Your task to perform on an android device: turn vacation reply on in the gmail app Image 0: 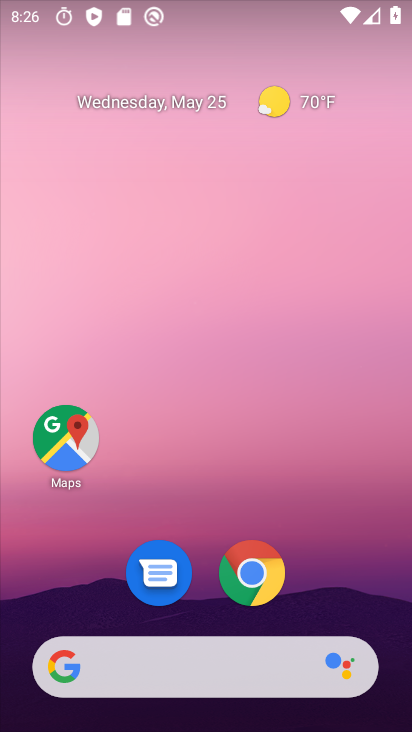
Step 0: drag from (357, 592) to (252, 249)
Your task to perform on an android device: turn vacation reply on in the gmail app Image 1: 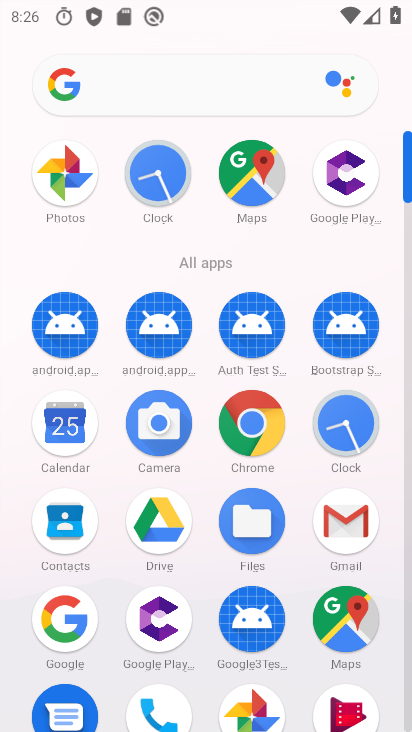
Step 1: click (357, 532)
Your task to perform on an android device: turn vacation reply on in the gmail app Image 2: 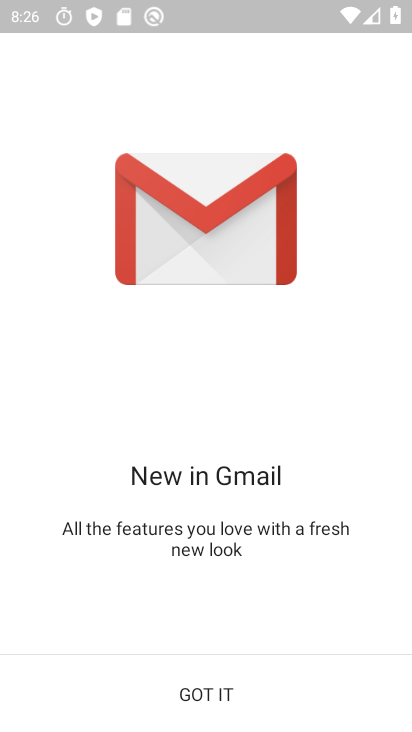
Step 2: click (221, 696)
Your task to perform on an android device: turn vacation reply on in the gmail app Image 3: 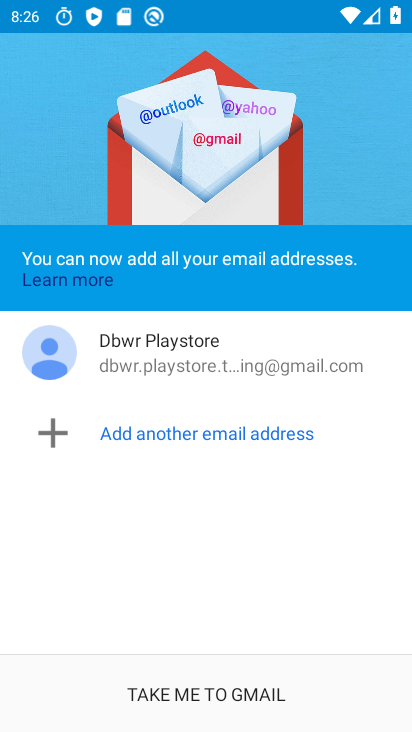
Step 3: click (221, 696)
Your task to perform on an android device: turn vacation reply on in the gmail app Image 4: 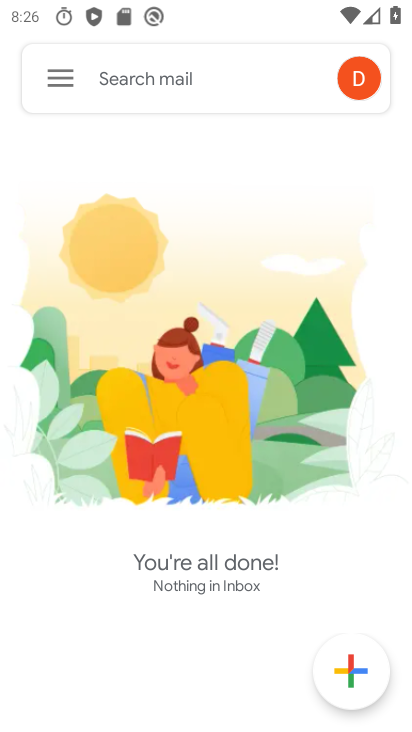
Step 4: click (62, 91)
Your task to perform on an android device: turn vacation reply on in the gmail app Image 5: 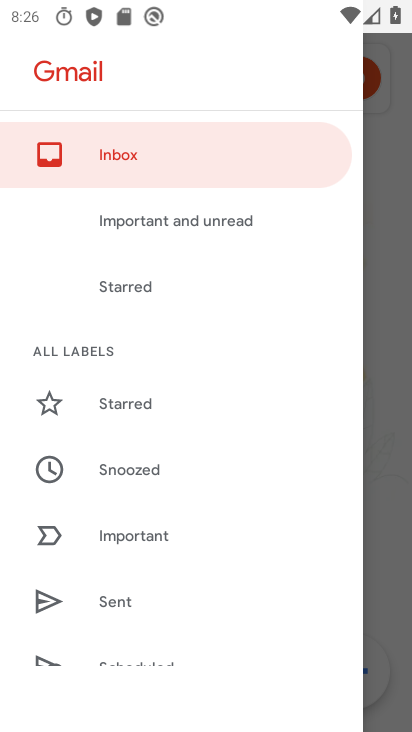
Step 5: drag from (130, 647) to (123, 264)
Your task to perform on an android device: turn vacation reply on in the gmail app Image 6: 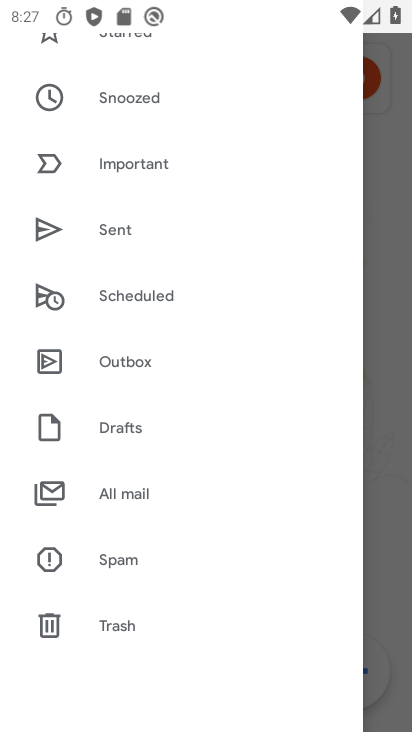
Step 6: drag from (156, 618) to (127, 213)
Your task to perform on an android device: turn vacation reply on in the gmail app Image 7: 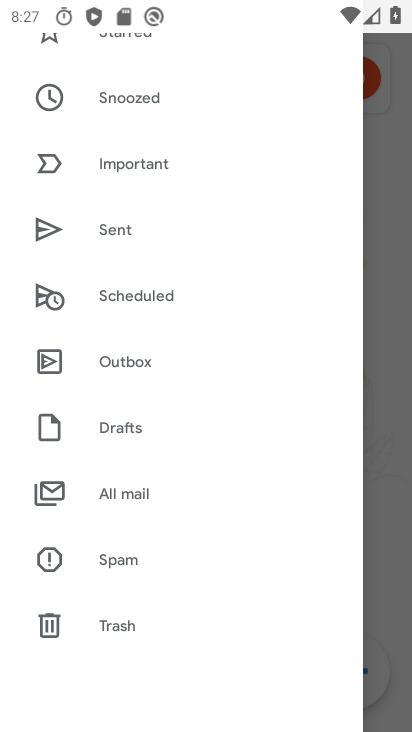
Step 7: drag from (119, 590) to (98, 296)
Your task to perform on an android device: turn vacation reply on in the gmail app Image 8: 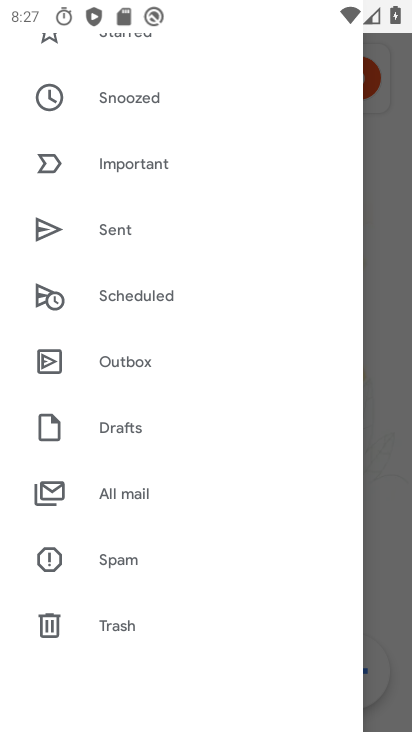
Step 8: drag from (111, 591) to (141, 211)
Your task to perform on an android device: turn vacation reply on in the gmail app Image 9: 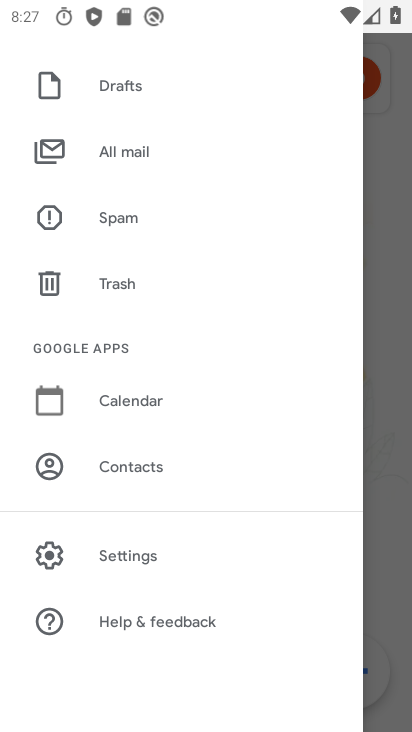
Step 9: click (137, 570)
Your task to perform on an android device: turn vacation reply on in the gmail app Image 10: 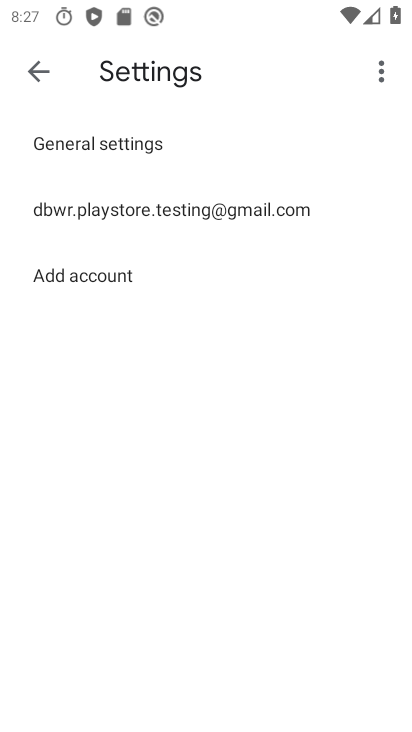
Step 10: click (245, 203)
Your task to perform on an android device: turn vacation reply on in the gmail app Image 11: 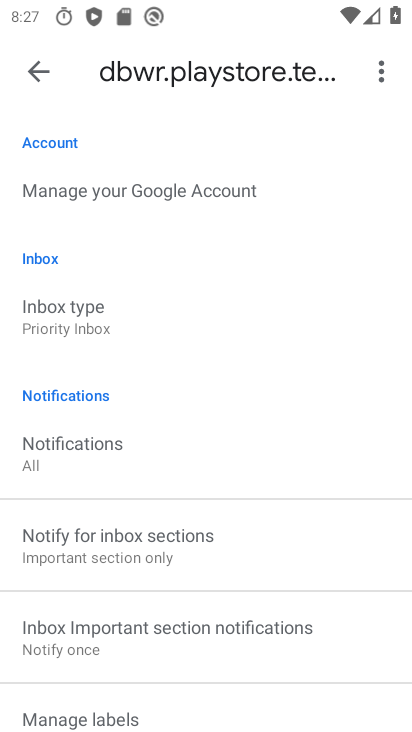
Step 11: drag from (172, 699) to (135, 258)
Your task to perform on an android device: turn vacation reply on in the gmail app Image 12: 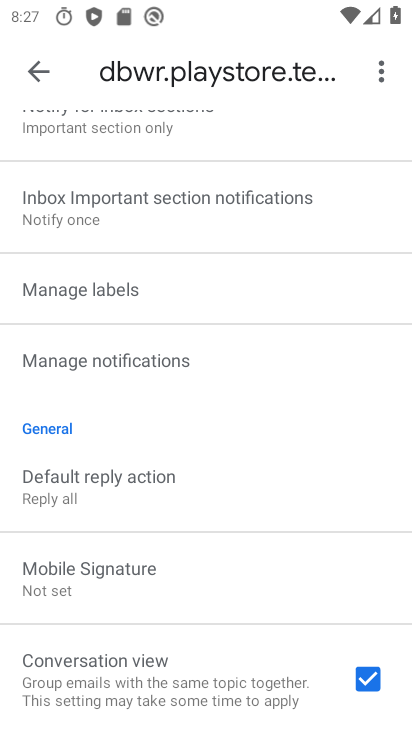
Step 12: drag from (143, 686) to (84, 180)
Your task to perform on an android device: turn vacation reply on in the gmail app Image 13: 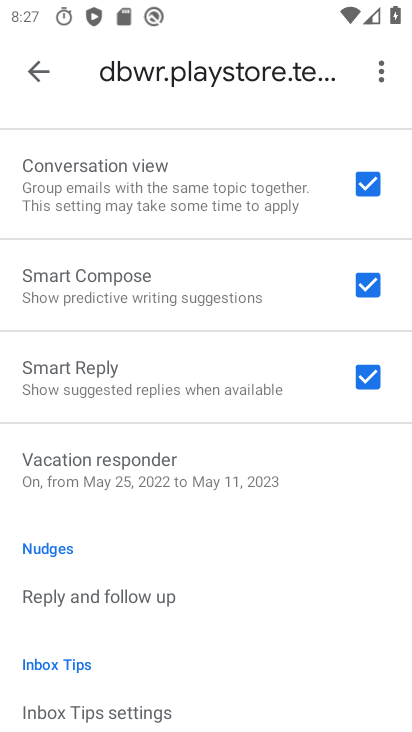
Step 13: click (132, 476)
Your task to perform on an android device: turn vacation reply on in the gmail app Image 14: 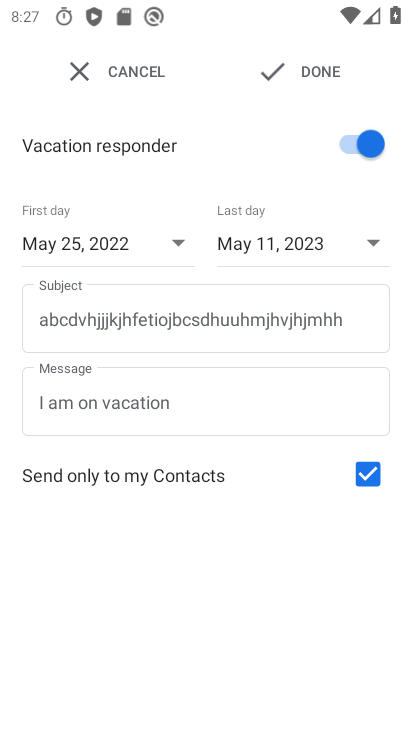
Step 14: click (317, 78)
Your task to perform on an android device: turn vacation reply on in the gmail app Image 15: 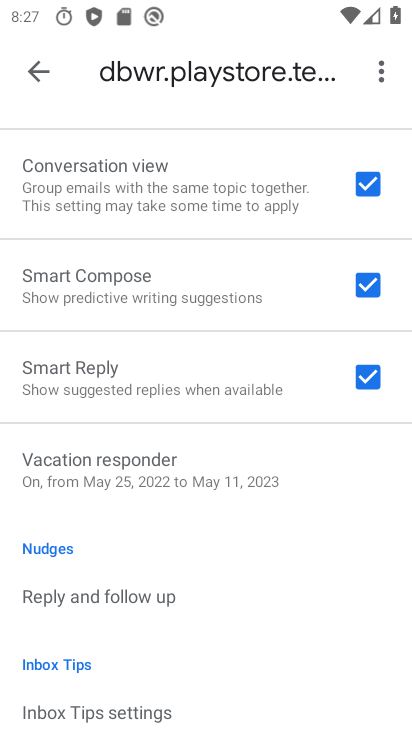
Step 15: task complete